Your task to perform on an android device: Open the phone app and click the voicemail tab. Image 0: 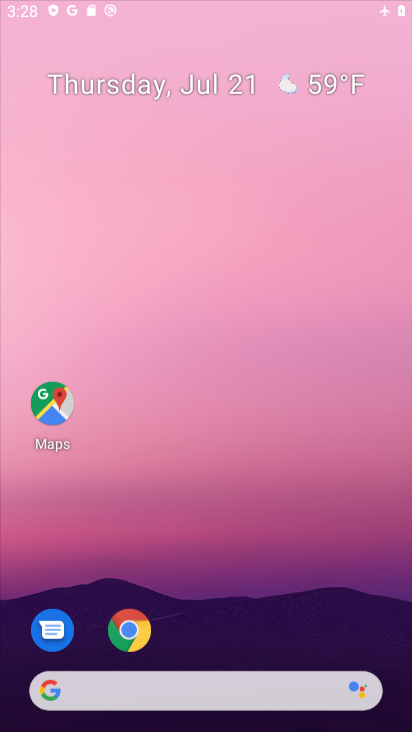
Step 0: click (139, 156)
Your task to perform on an android device: Open the phone app and click the voicemail tab. Image 1: 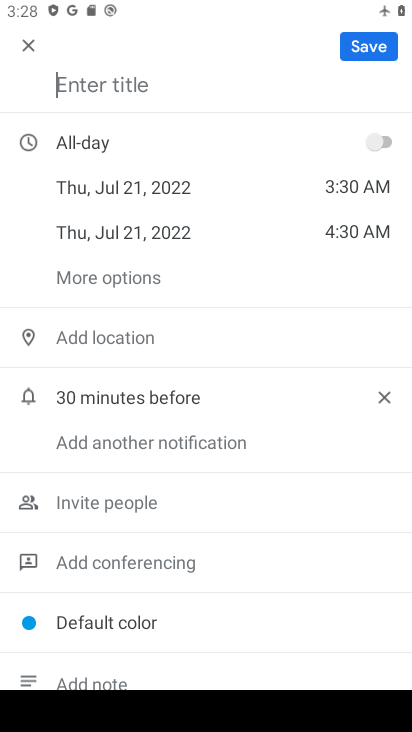
Step 1: click (37, 45)
Your task to perform on an android device: Open the phone app and click the voicemail tab. Image 2: 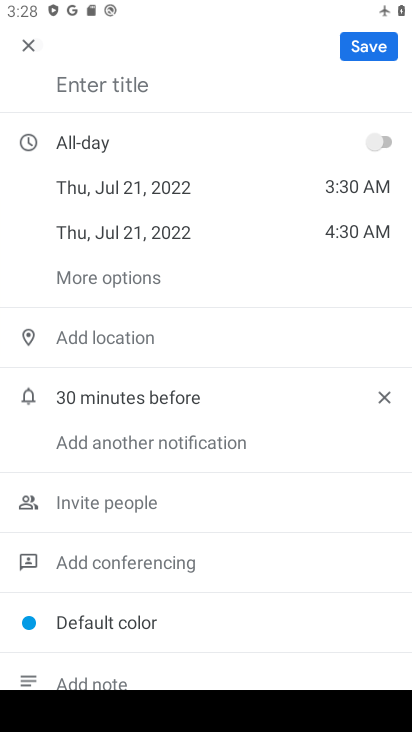
Step 2: click (35, 44)
Your task to perform on an android device: Open the phone app and click the voicemail tab. Image 3: 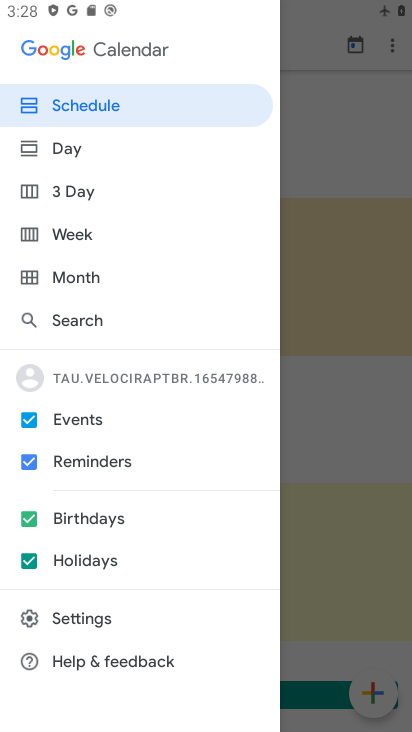
Step 3: click (373, 360)
Your task to perform on an android device: Open the phone app and click the voicemail tab. Image 4: 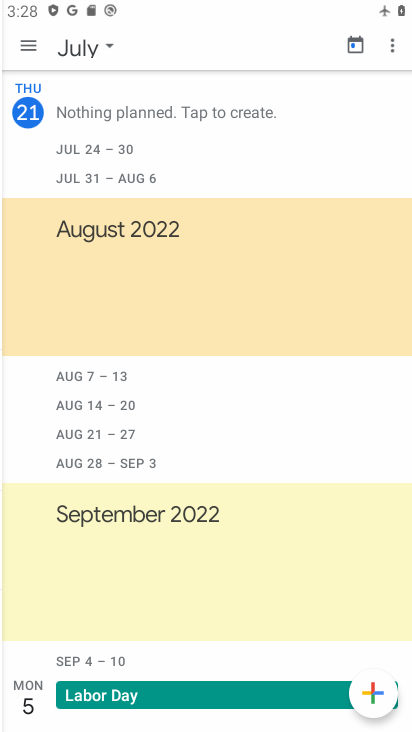
Step 4: press back button
Your task to perform on an android device: Open the phone app and click the voicemail tab. Image 5: 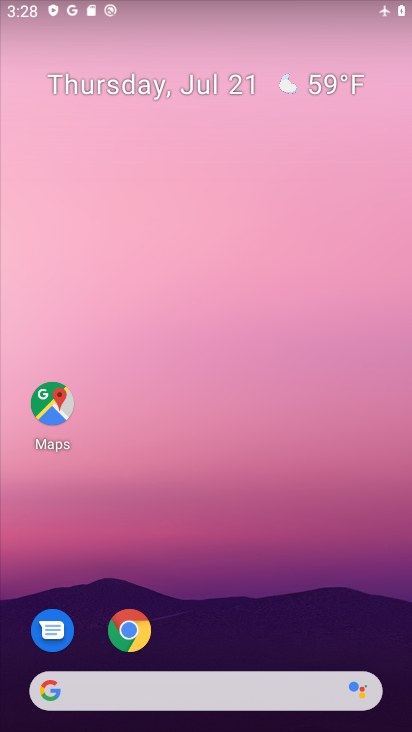
Step 5: drag from (201, 498) to (141, 85)
Your task to perform on an android device: Open the phone app and click the voicemail tab. Image 6: 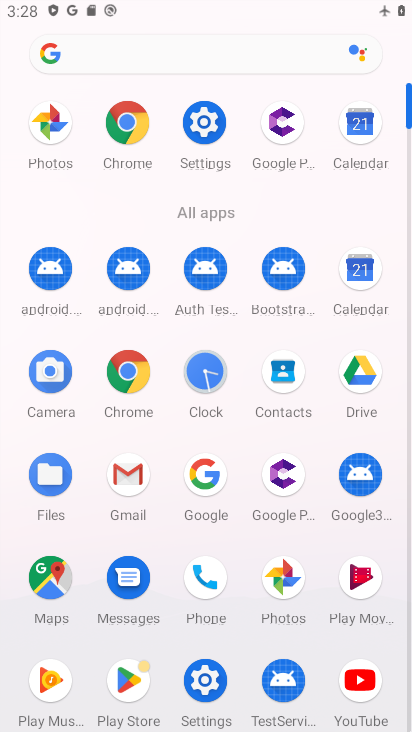
Step 6: click (199, 572)
Your task to perform on an android device: Open the phone app and click the voicemail tab. Image 7: 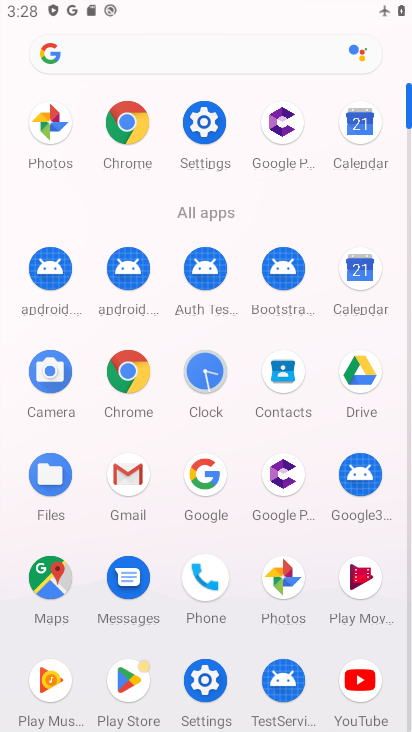
Step 7: click (202, 571)
Your task to perform on an android device: Open the phone app and click the voicemail tab. Image 8: 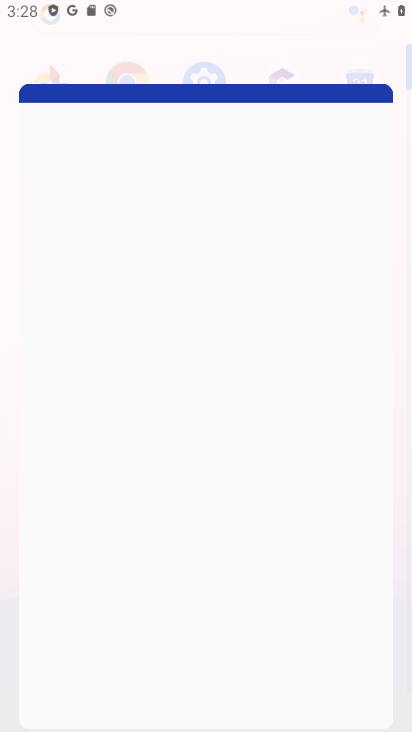
Step 8: click (202, 571)
Your task to perform on an android device: Open the phone app and click the voicemail tab. Image 9: 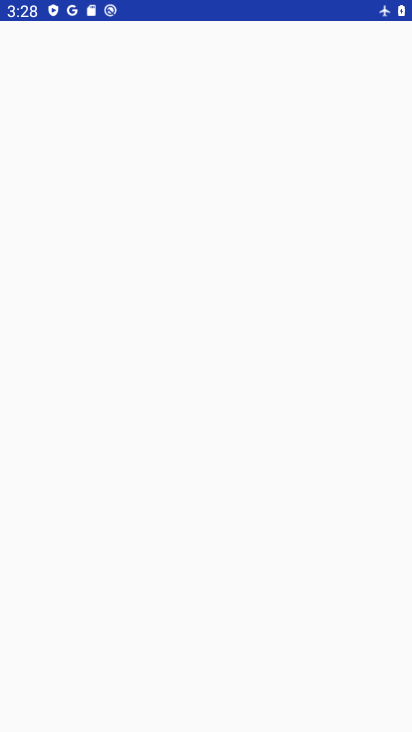
Step 9: click (202, 571)
Your task to perform on an android device: Open the phone app and click the voicemail tab. Image 10: 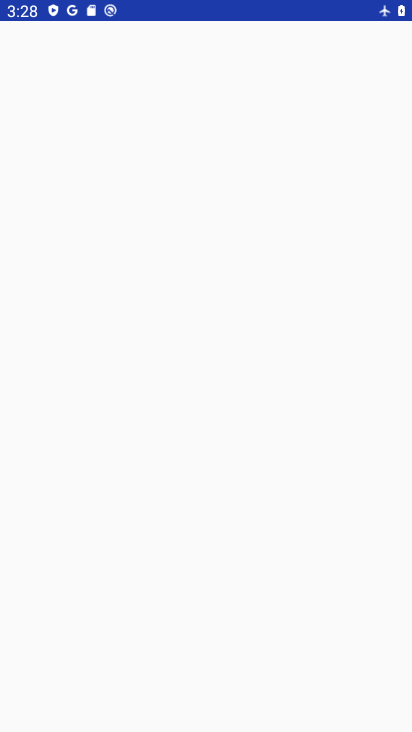
Step 10: click (203, 562)
Your task to perform on an android device: Open the phone app and click the voicemail tab. Image 11: 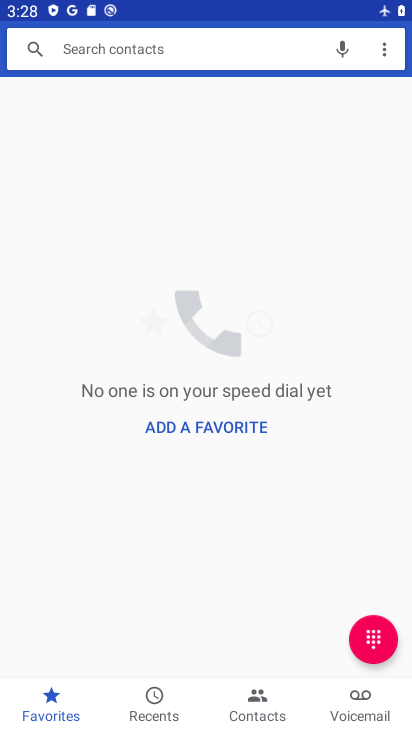
Step 11: click (347, 693)
Your task to perform on an android device: Open the phone app and click the voicemail tab. Image 12: 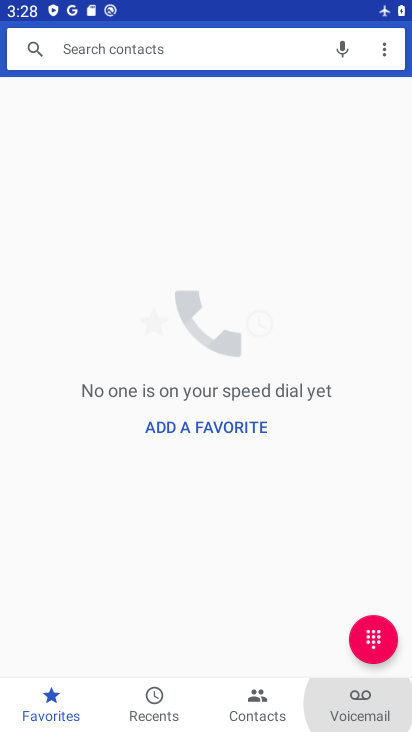
Step 12: click (351, 695)
Your task to perform on an android device: Open the phone app and click the voicemail tab. Image 13: 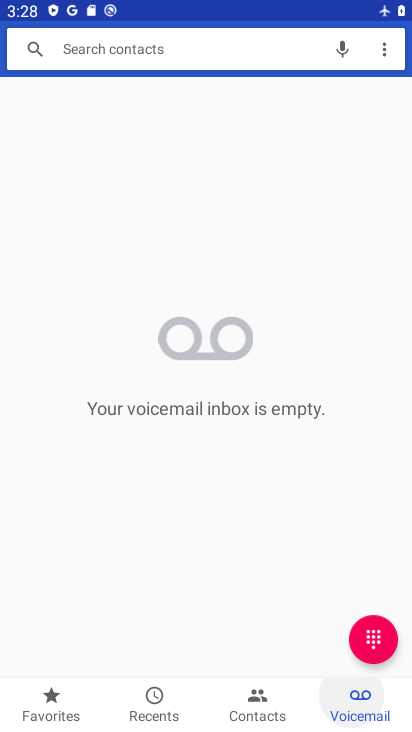
Step 13: click (353, 697)
Your task to perform on an android device: Open the phone app and click the voicemail tab. Image 14: 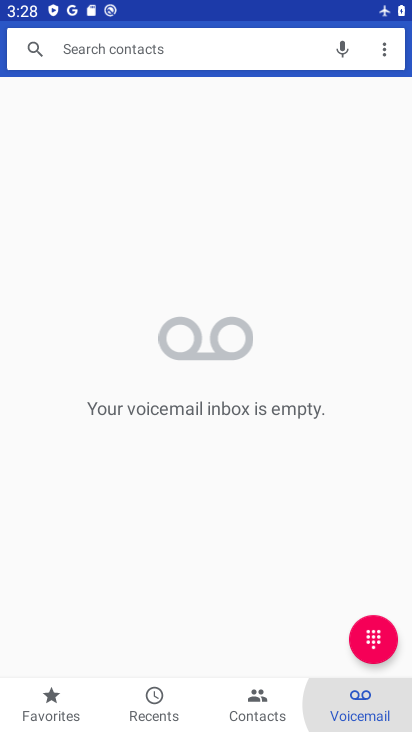
Step 14: click (353, 697)
Your task to perform on an android device: Open the phone app and click the voicemail tab. Image 15: 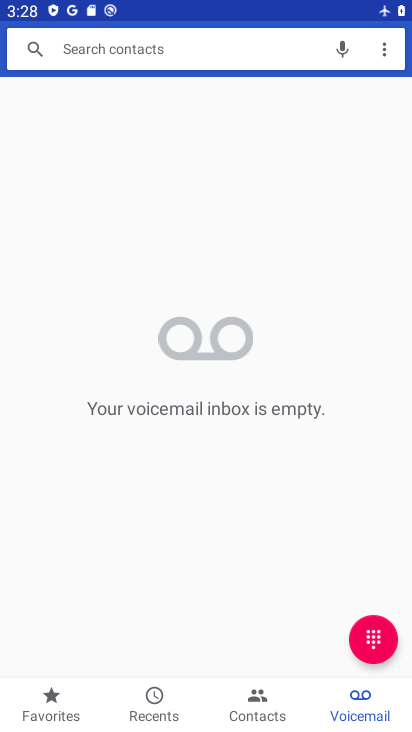
Step 15: task complete